Your task to perform on an android device: Show me productivity apps on the Play Store Image 0: 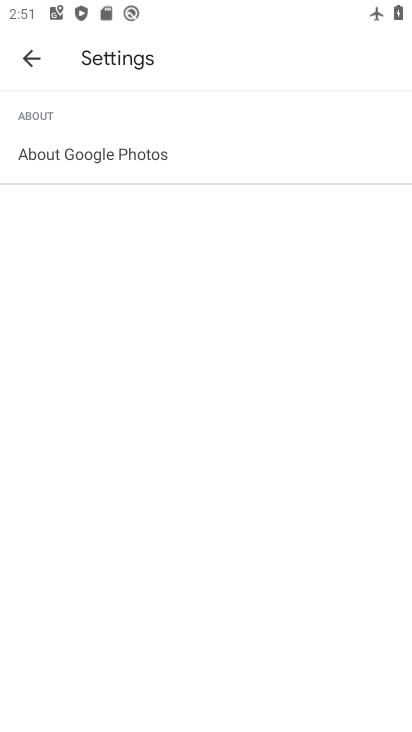
Step 0: press home button
Your task to perform on an android device: Show me productivity apps on the Play Store Image 1: 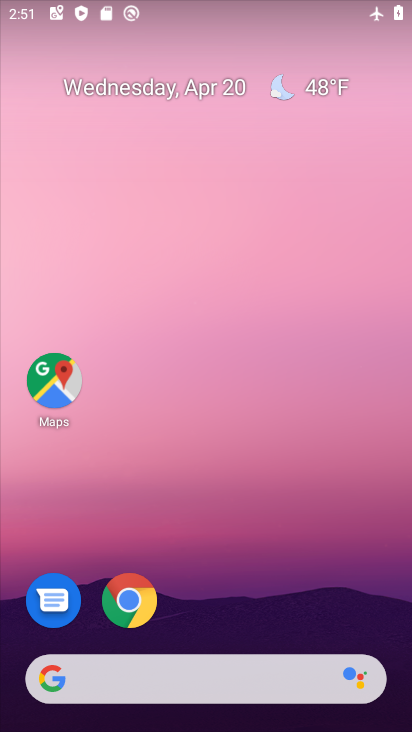
Step 1: drag from (265, 570) to (256, 91)
Your task to perform on an android device: Show me productivity apps on the Play Store Image 2: 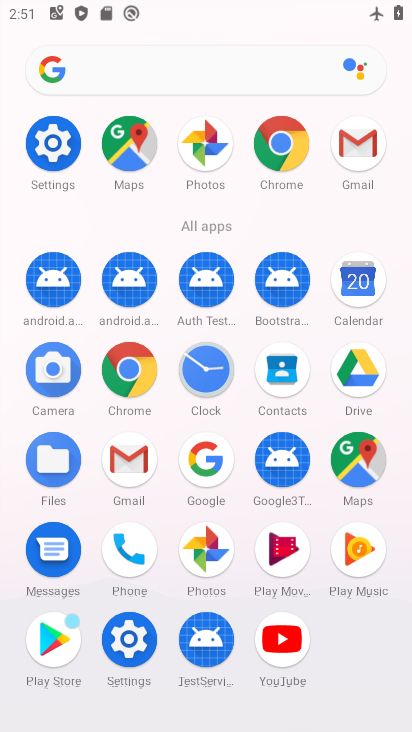
Step 2: drag from (349, 652) to (411, 327)
Your task to perform on an android device: Show me productivity apps on the Play Store Image 3: 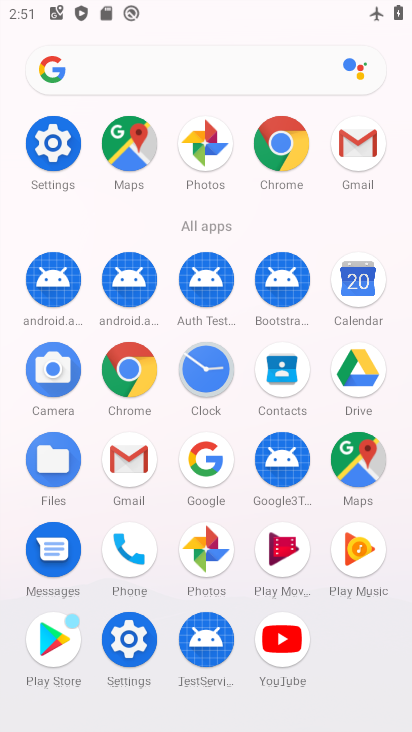
Step 3: drag from (316, 628) to (375, 240)
Your task to perform on an android device: Show me productivity apps on the Play Store Image 4: 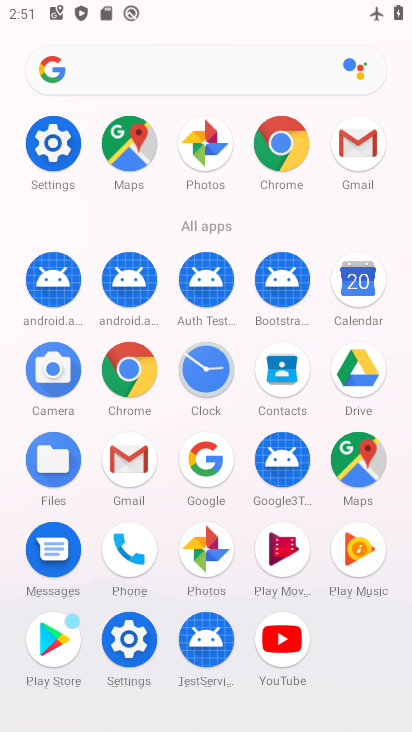
Step 4: click (51, 618)
Your task to perform on an android device: Show me productivity apps on the Play Store Image 5: 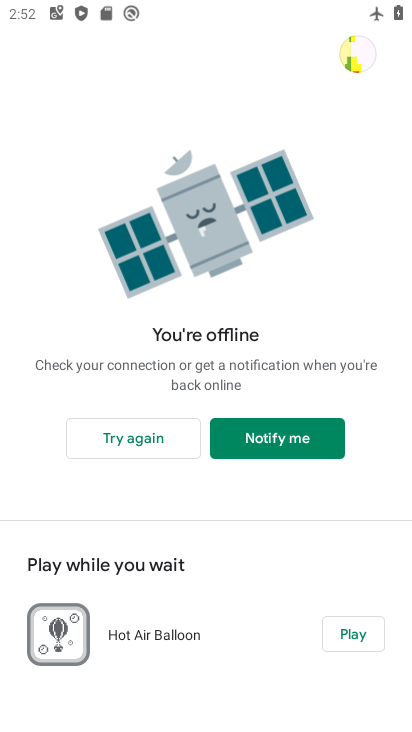
Step 5: click (155, 439)
Your task to perform on an android device: Show me productivity apps on the Play Store Image 6: 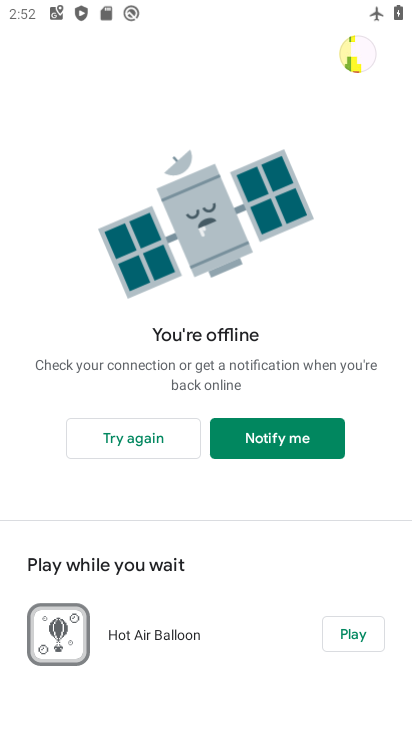
Step 6: click (154, 427)
Your task to perform on an android device: Show me productivity apps on the Play Store Image 7: 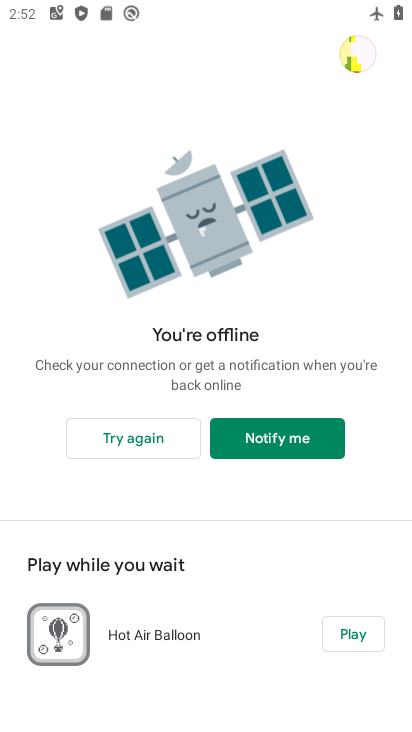
Step 7: click (155, 429)
Your task to perform on an android device: Show me productivity apps on the Play Store Image 8: 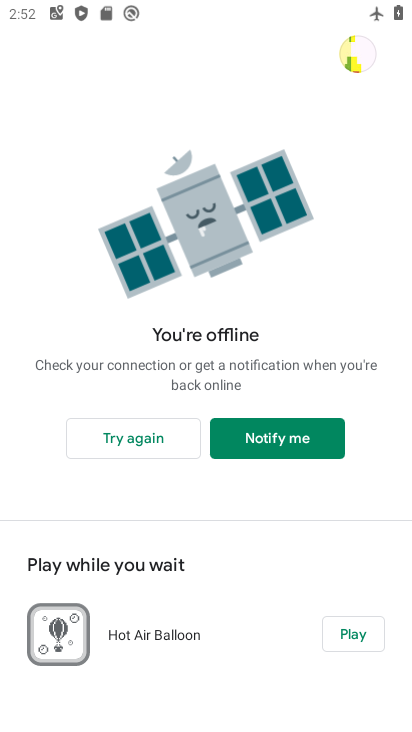
Step 8: task complete